Your task to perform on an android device: Go to wifi settings Image 0: 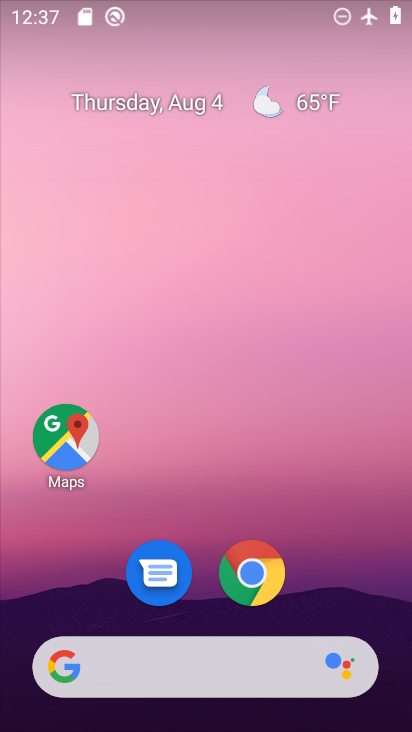
Step 0: drag from (319, 300) to (318, 79)
Your task to perform on an android device: Go to wifi settings Image 1: 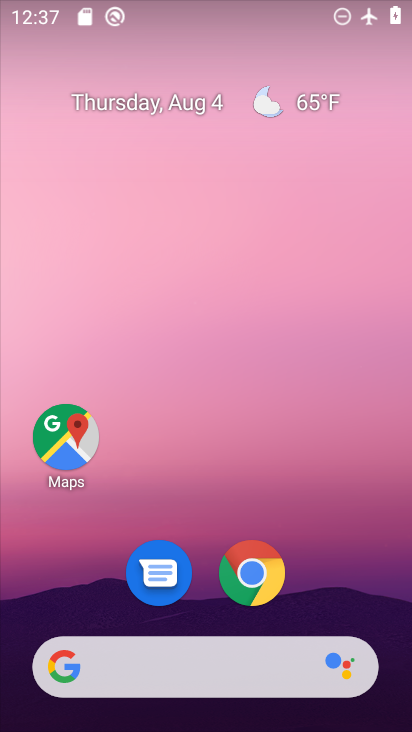
Step 1: drag from (317, 450) to (289, 67)
Your task to perform on an android device: Go to wifi settings Image 2: 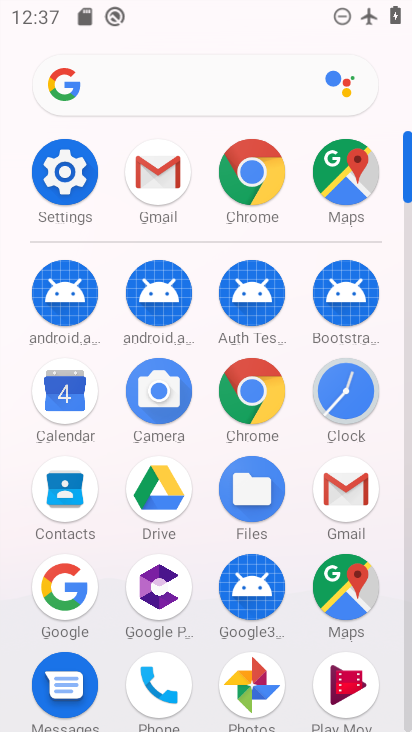
Step 2: click (68, 165)
Your task to perform on an android device: Go to wifi settings Image 3: 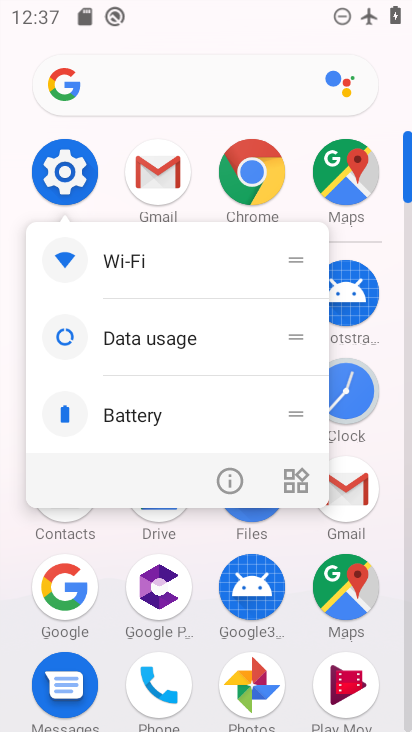
Step 3: click (395, 260)
Your task to perform on an android device: Go to wifi settings Image 4: 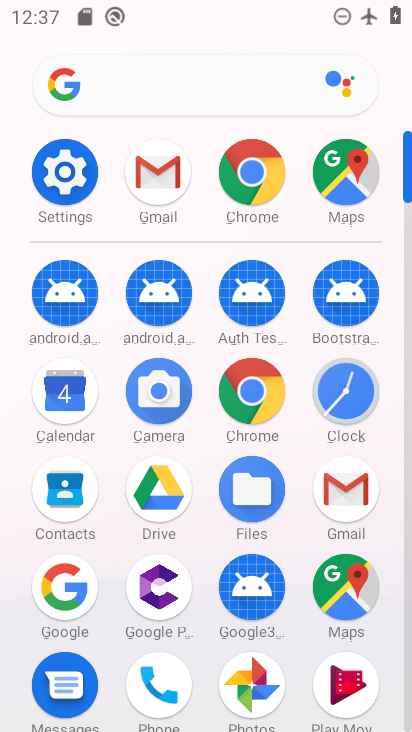
Step 4: drag from (193, 550) to (211, 341)
Your task to perform on an android device: Go to wifi settings Image 5: 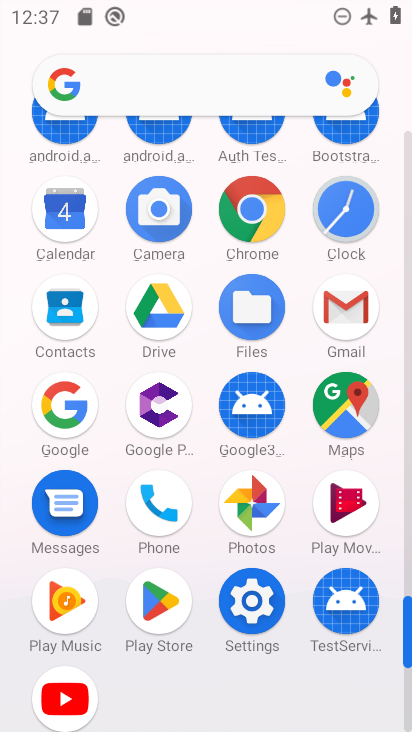
Step 5: click (252, 594)
Your task to perform on an android device: Go to wifi settings Image 6: 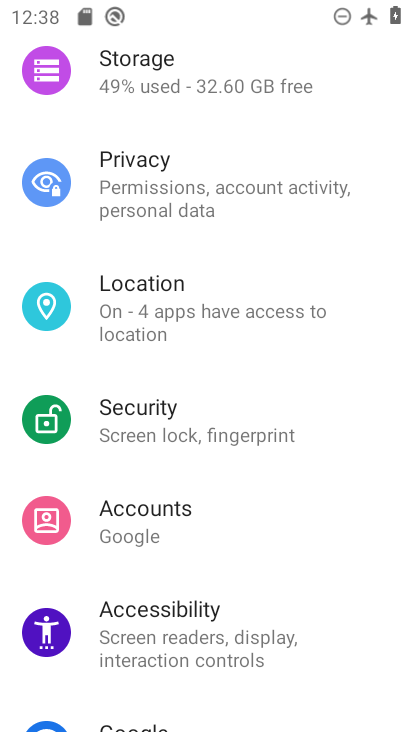
Step 6: drag from (248, 101) to (258, 484)
Your task to perform on an android device: Go to wifi settings Image 7: 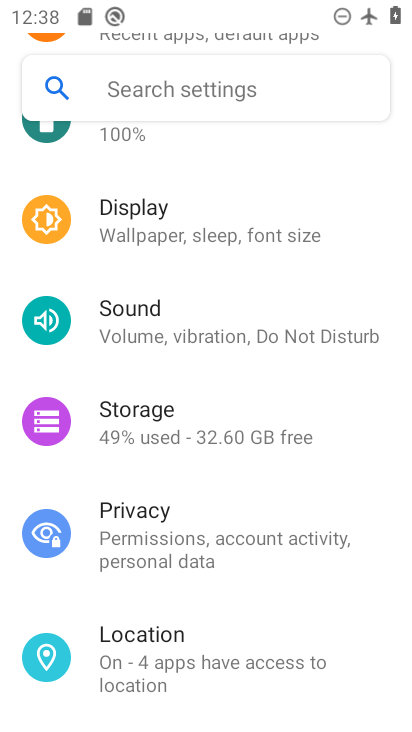
Step 7: drag from (209, 169) to (206, 471)
Your task to perform on an android device: Go to wifi settings Image 8: 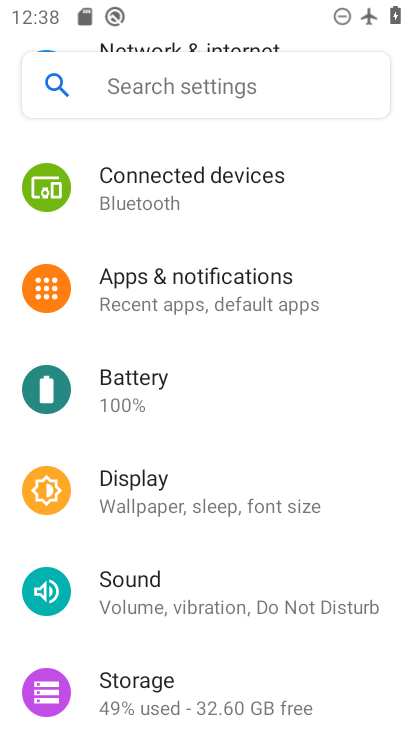
Step 8: drag from (185, 174) to (218, 374)
Your task to perform on an android device: Go to wifi settings Image 9: 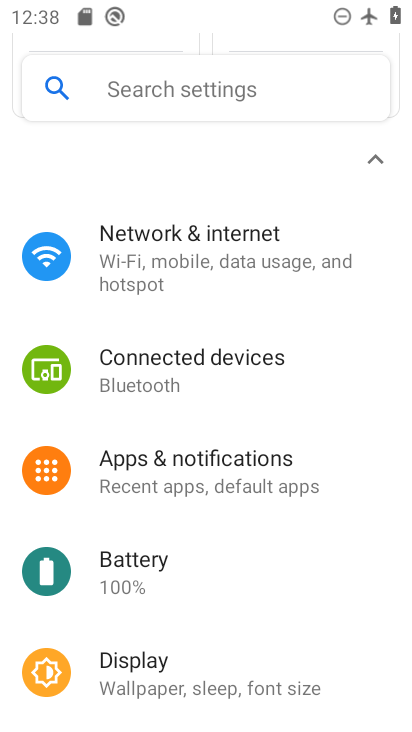
Step 9: click (168, 241)
Your task to perform on an android device: Go to wifi settings Image 10: 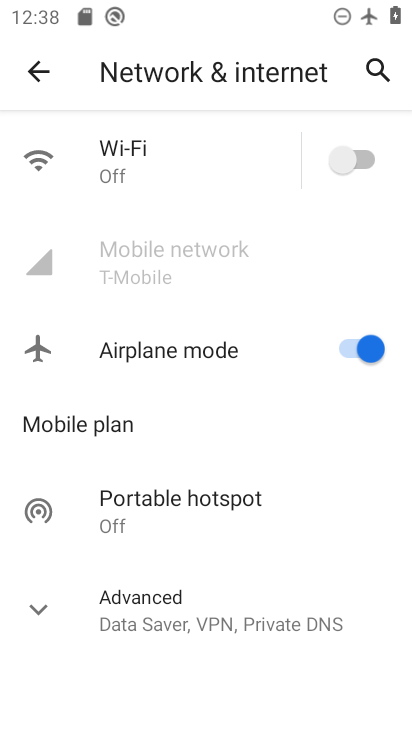
Step 10: click (184, 150)
Your task to perform on an android device: Go to wifi settings Image 11: 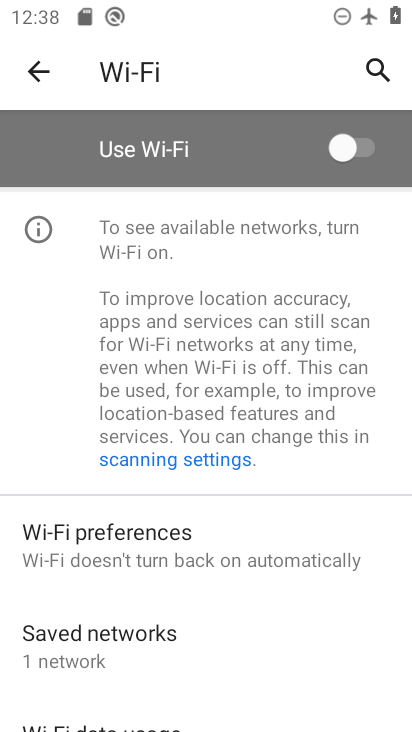
Step 11: click (115, 544)
Your task to perform on an android device: Go to wifi settings Image 12: 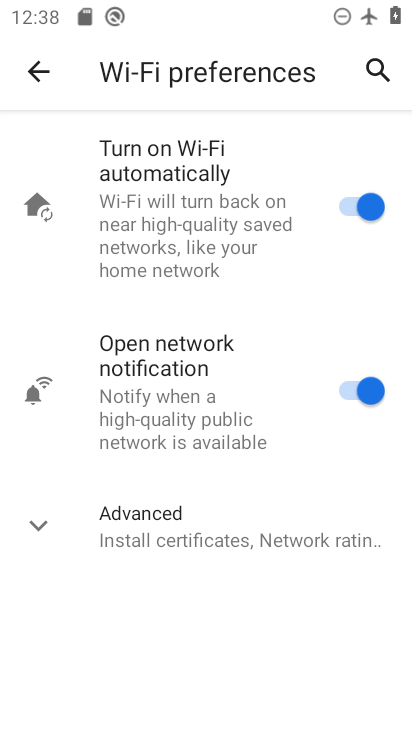
Step 12: task complete